Your task to perform on an android device: open app "Fetch Rewards" Image 0: 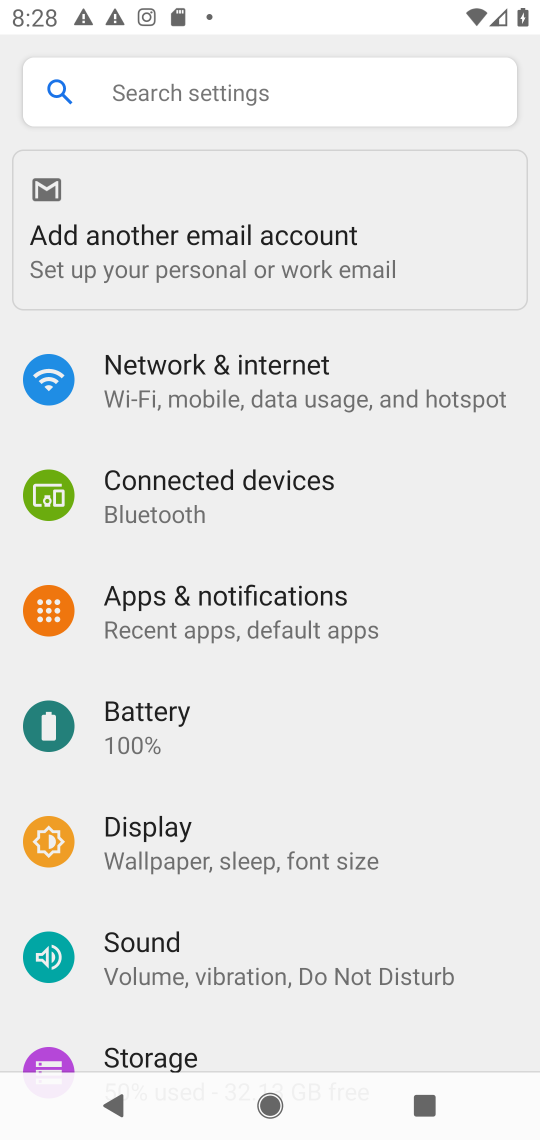
Step 0: press home button
Your task to perform on an android device: open app "Fetch Rewards" Image 1: 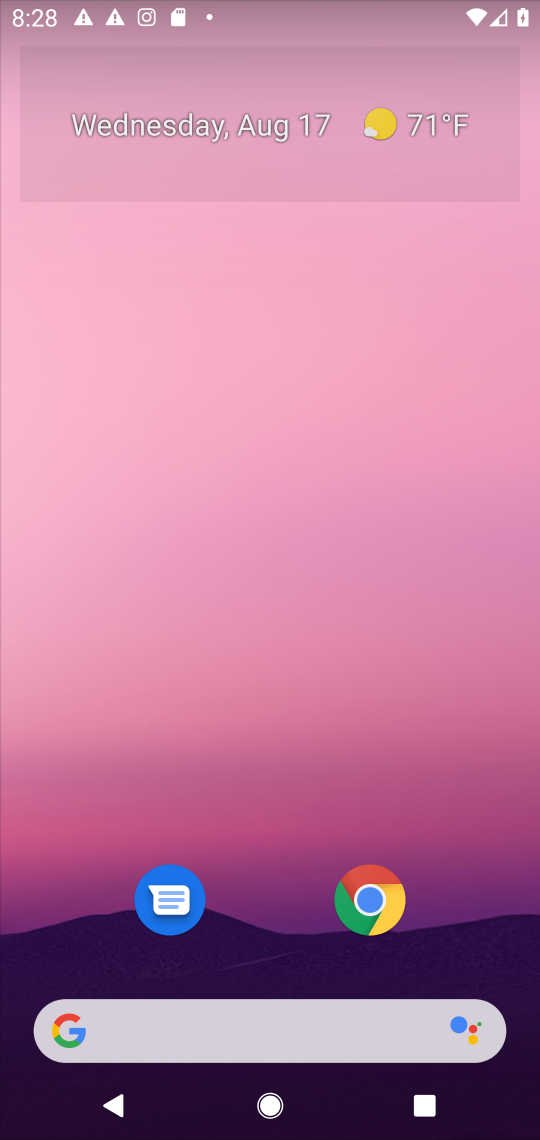
Step 1: drag from (266, 813) to (281, 85)
Your task to perform on an android device: open app "Fetch Rewards" Image 2: 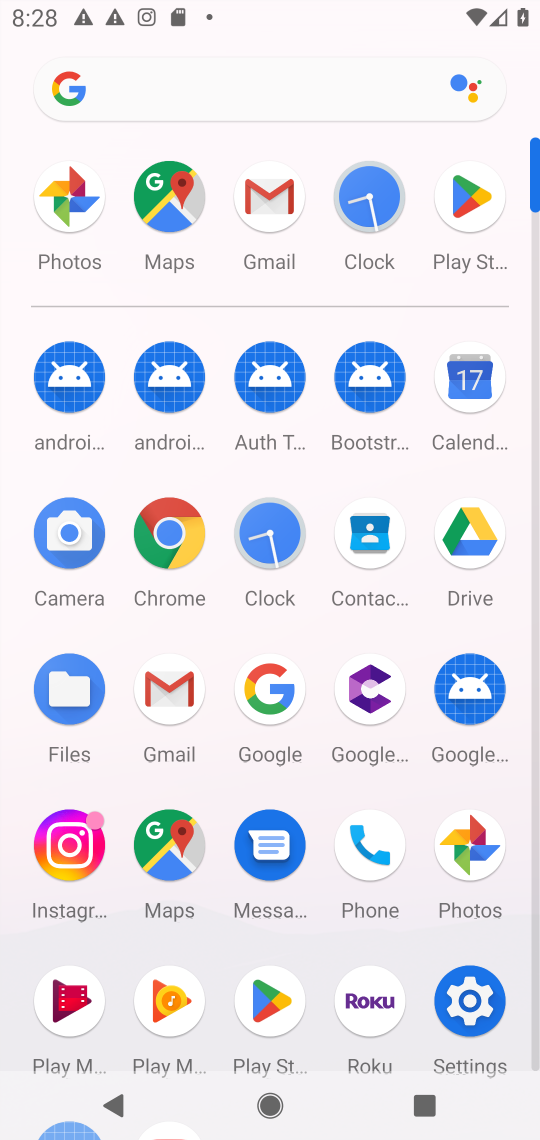
Step 2: click (462, 192)
Your task to perform on an android device: open app "Fetch Rewards" Image 3: 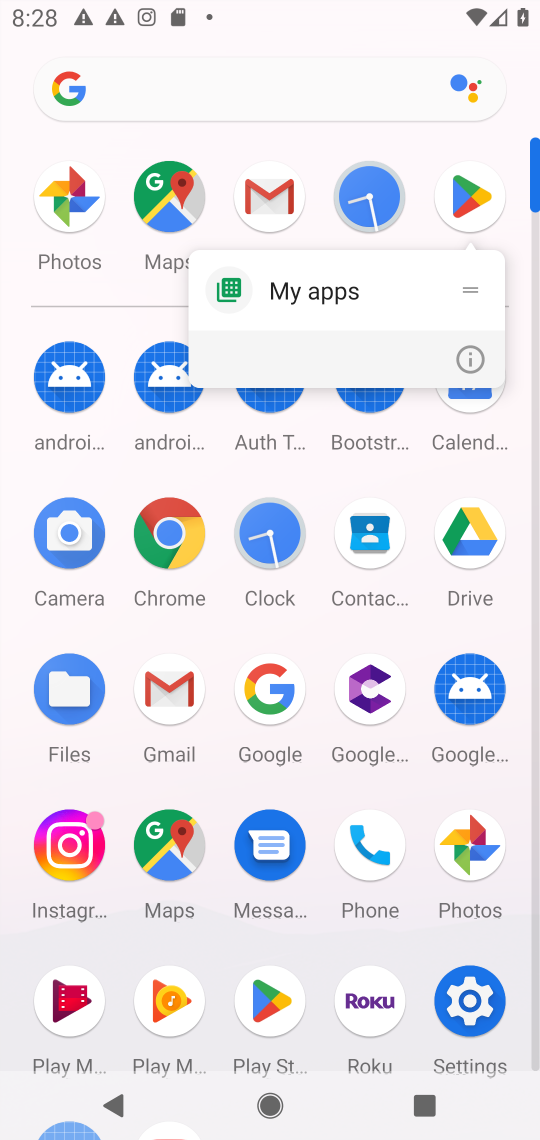
Step 3: click (467, 225)
Your task to perform on an android device: open app "Fetch Rewards" Image 4: 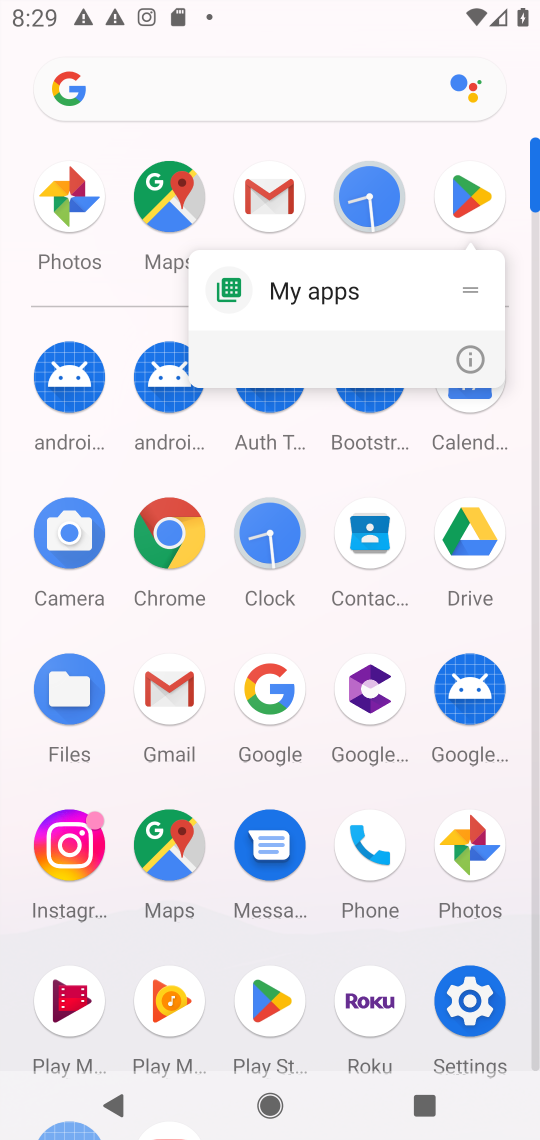
Step 4: click (467, 223)
Your task to perform on an android device: open app "Fetch Rewards" Image 5: 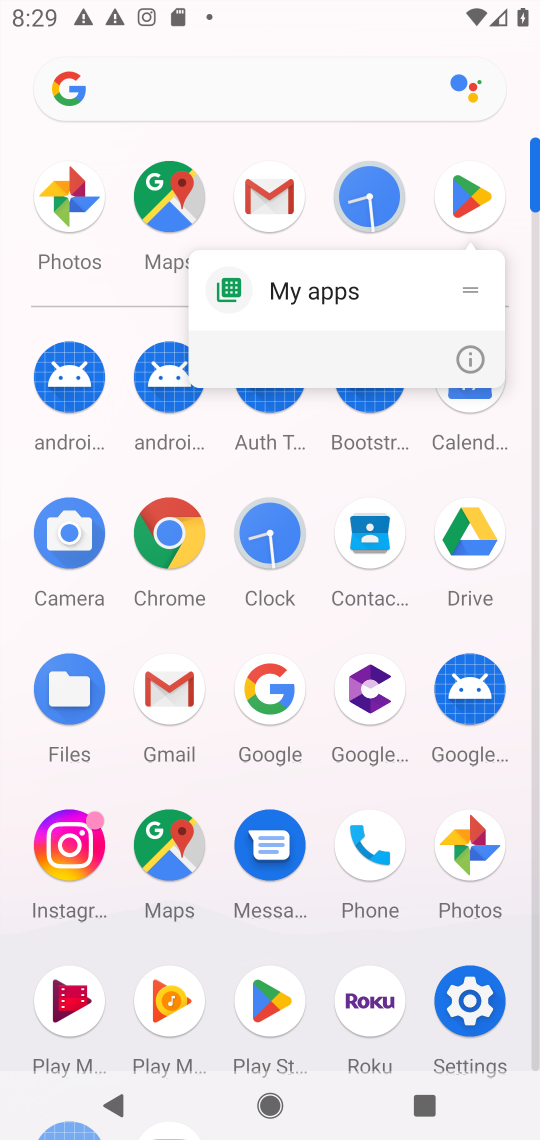
Step 5: click (467, 221)
Your task to perform on an android device: open app "Fetch Rewards" Image 6: 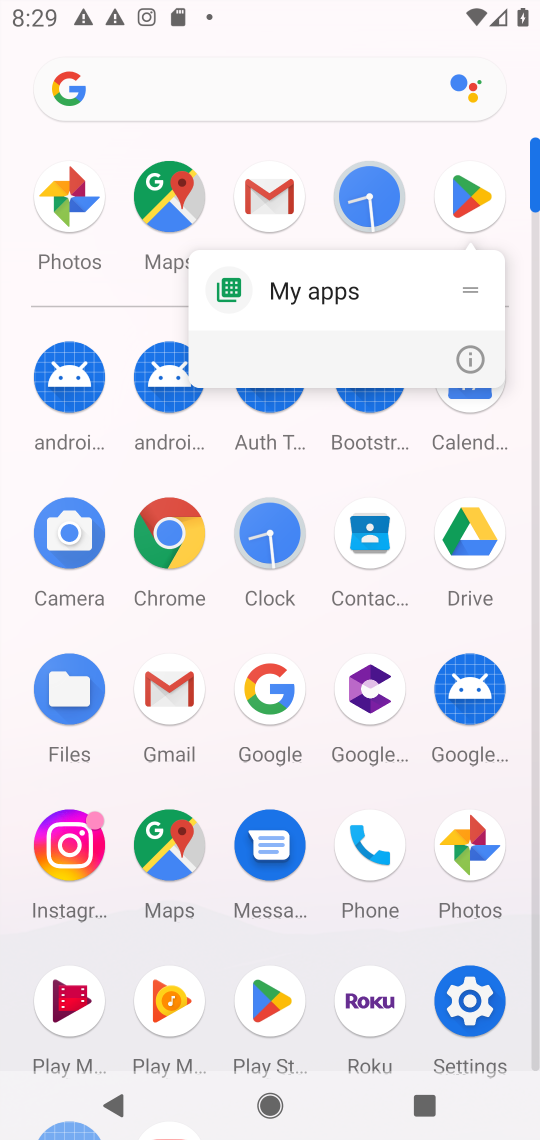
Step 6: click (467, 221)
Your task to perform on an android device: open app "Fetch Rewards" Image 7: 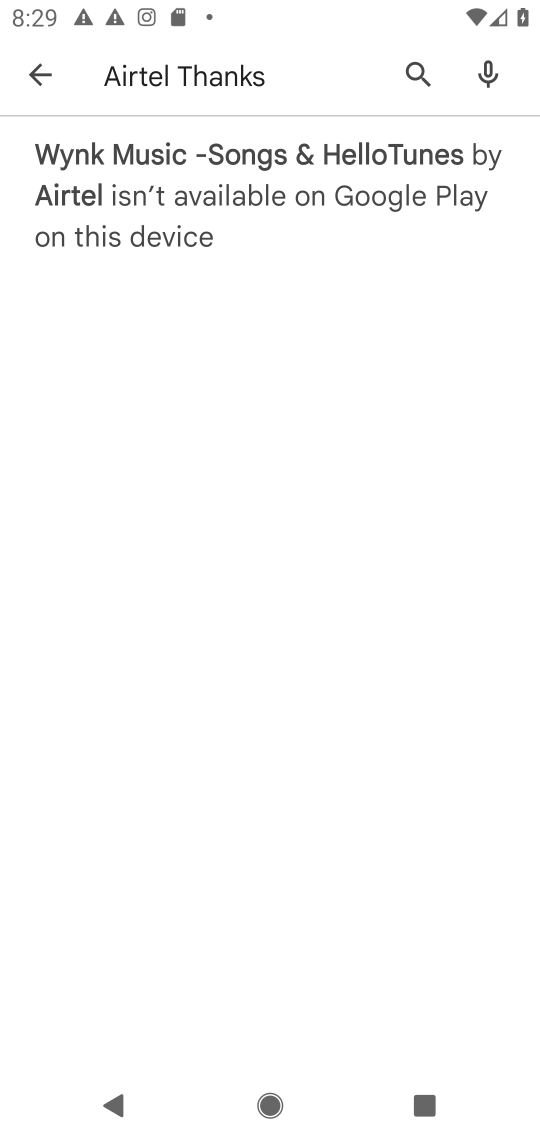
Step 7: click (37, 67)
Your task to perform on an android device: open app "Fetch Rewards" Image 8: 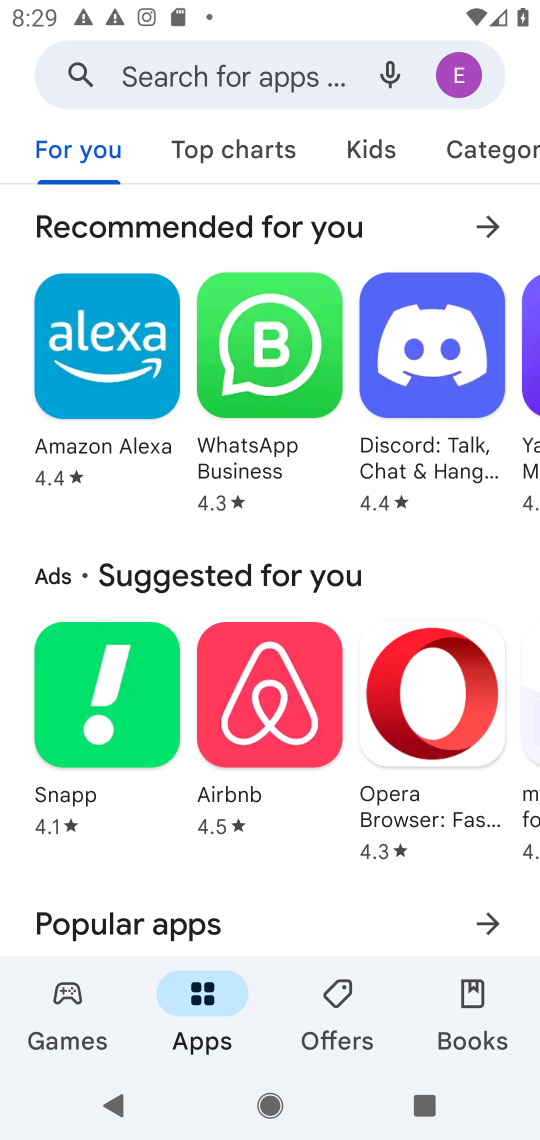
Step 8: click (144, 65)
Your task to perform on an android device: open app "Fetch Rewards" Image 9: 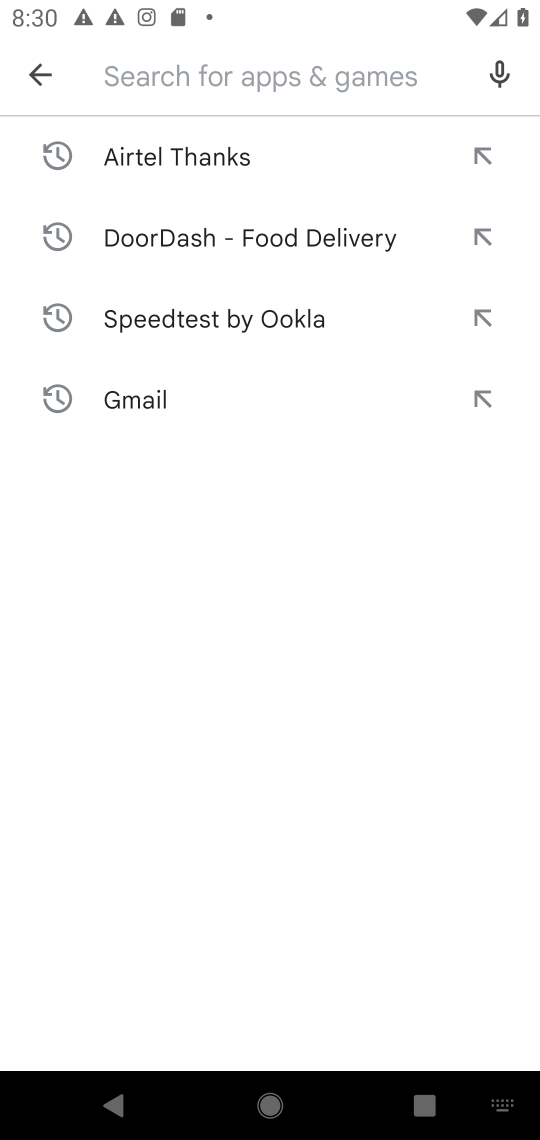
Step 9: type "Fetch Rewards"
Your task to perform on an android device: open app "Fetch Rewards" Image 10: 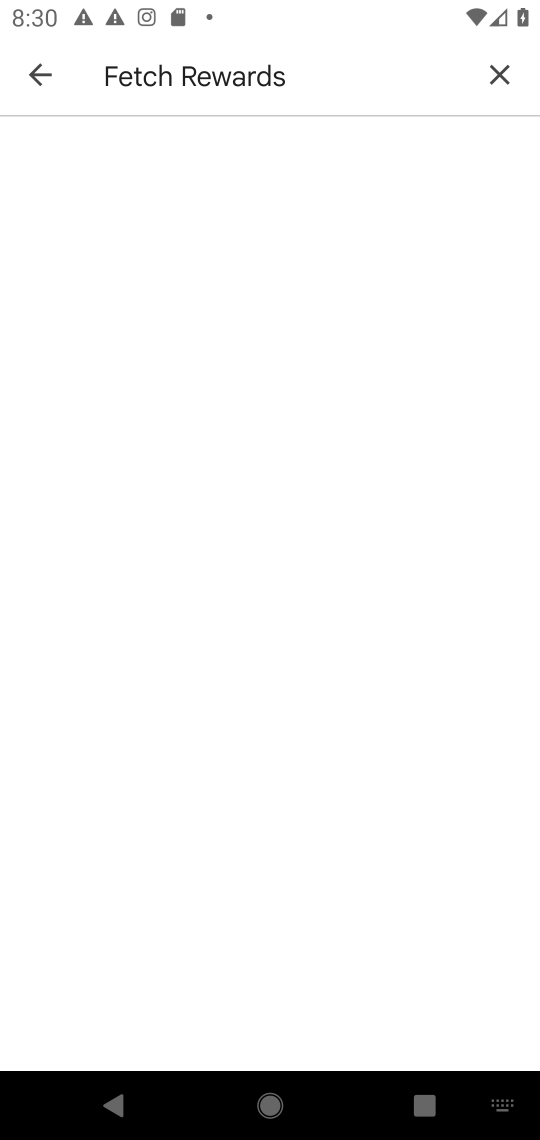
Step 10: press enter
Your task to perform on an android device: open app "Fetch Rewards" Image 11: 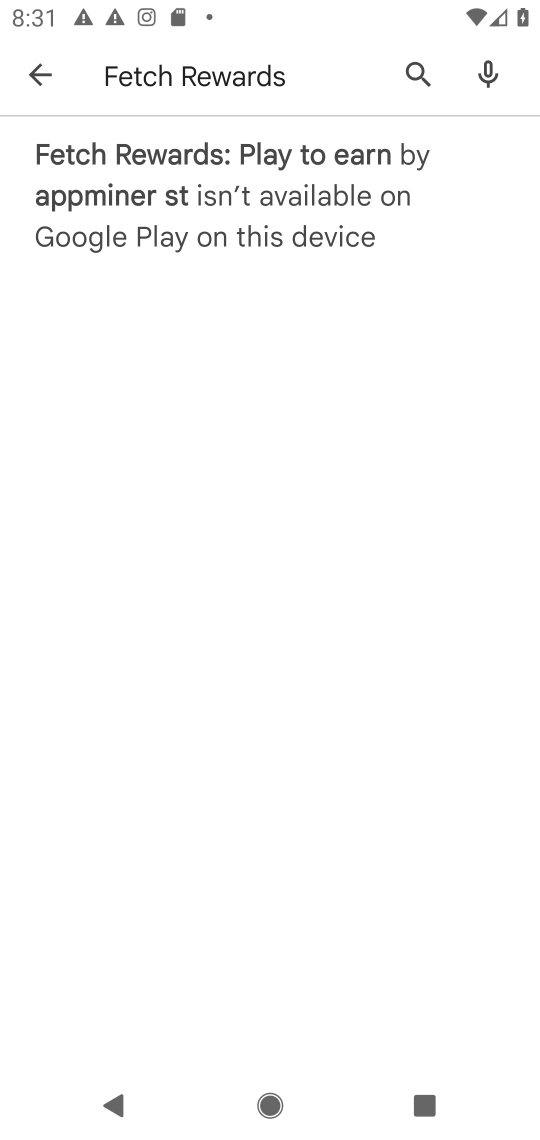
Step 11: task complete